Your task to perform on an android device: change the clock display to show seconds Image 0: 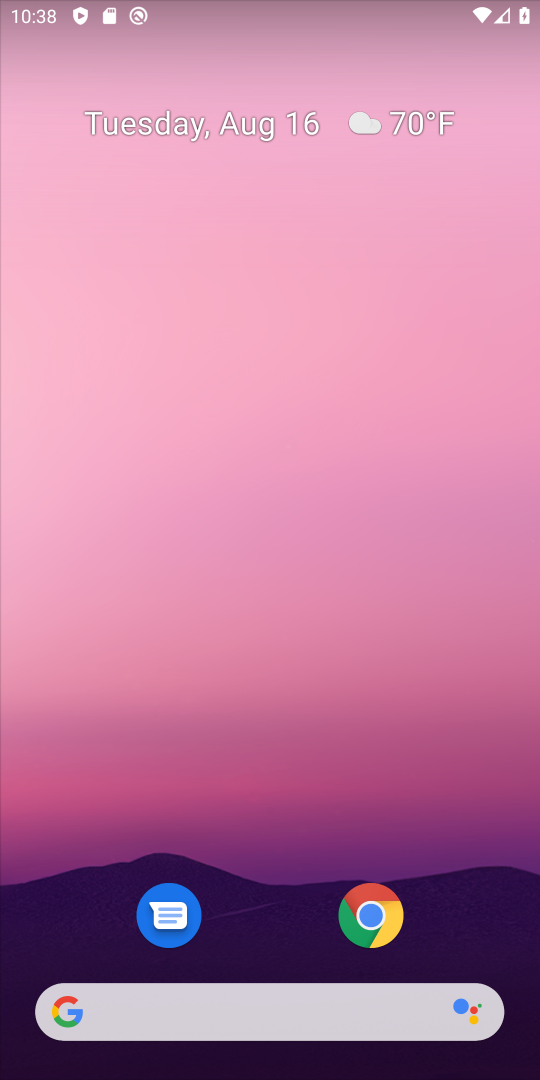
Step 0: drag from (295, 954) to (282, 31)
Your task to perform on an android device: change the clock display to show seconds Image 1: 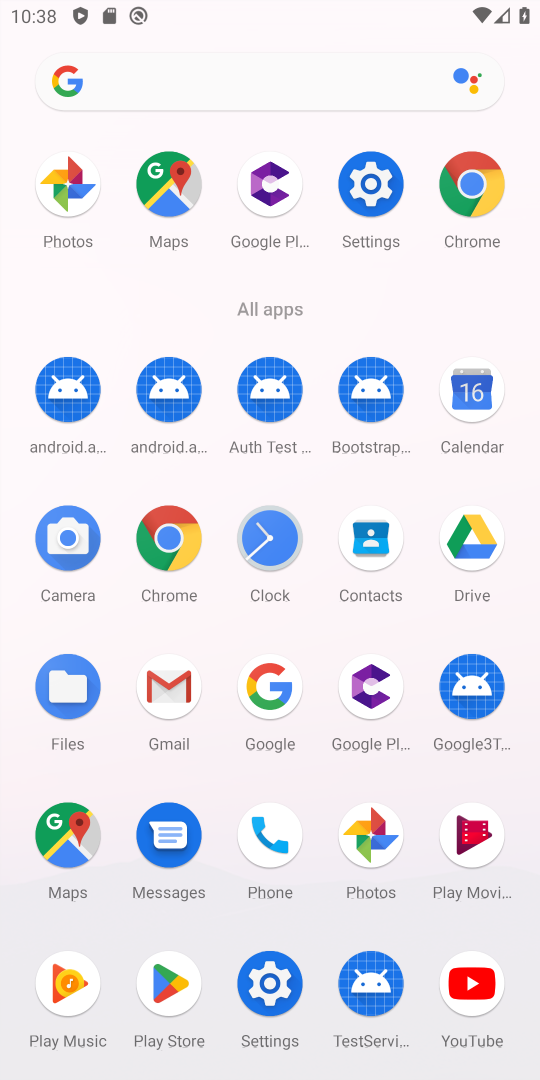
Step 1: click (261, 612)
Your task to perform on an android device: change the clock display to show seconds Image 2: 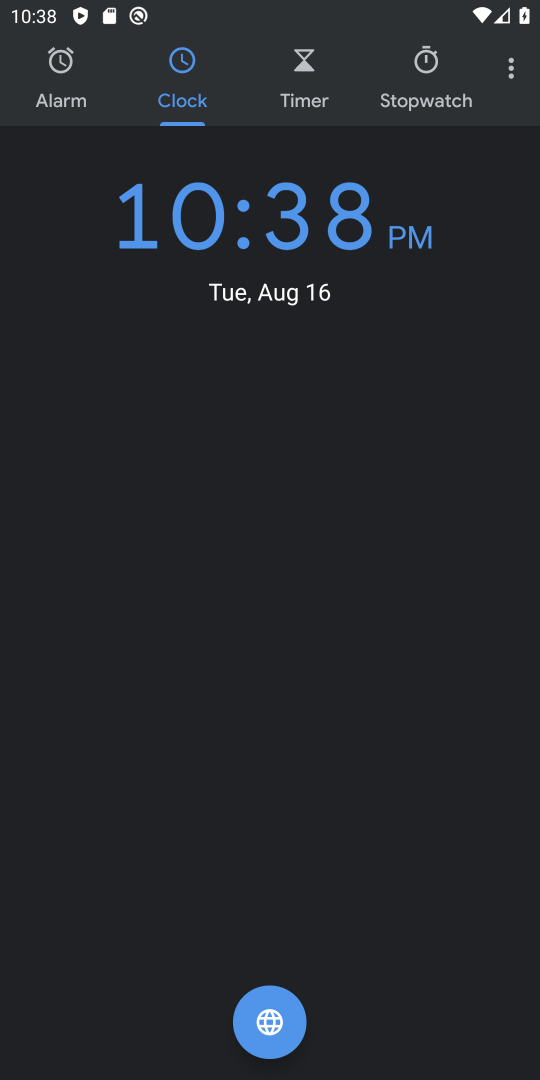
Step 2: click (524, 76)
Your task to perform on an android device: change the clock display to show seconds Image 3: 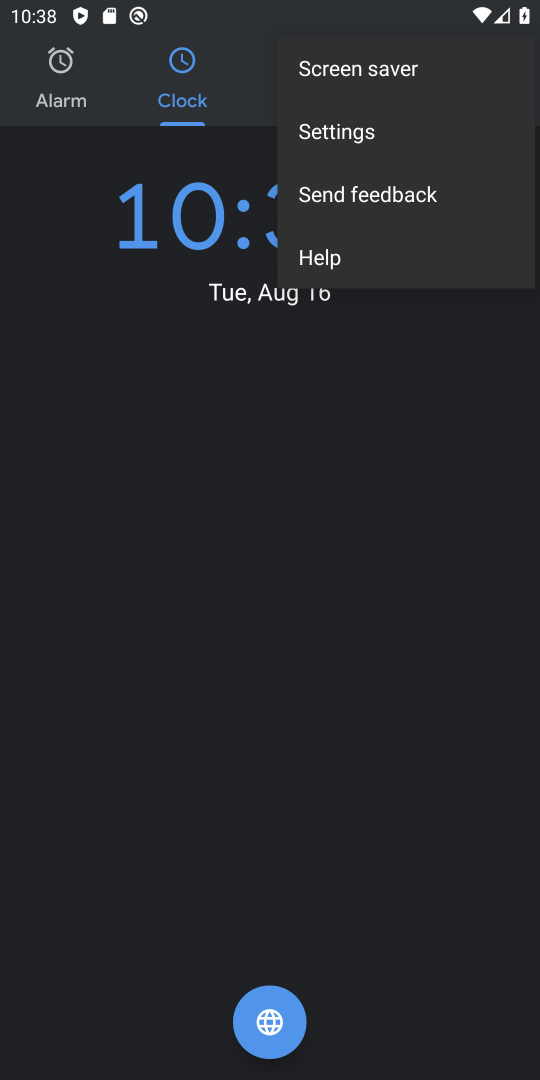
Step 3: click (372, 136)
Your task to perform on an android device: change the clock display to show seconds Image 4: 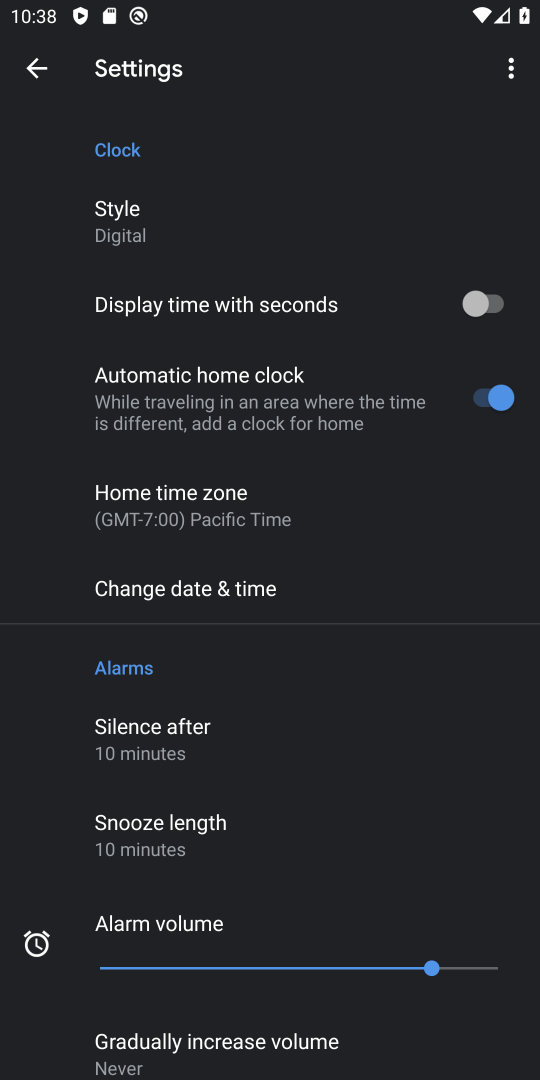
Step 4: click (478, 290)
Your task to perform on an android device: change the clock display to show seconds Image 5: 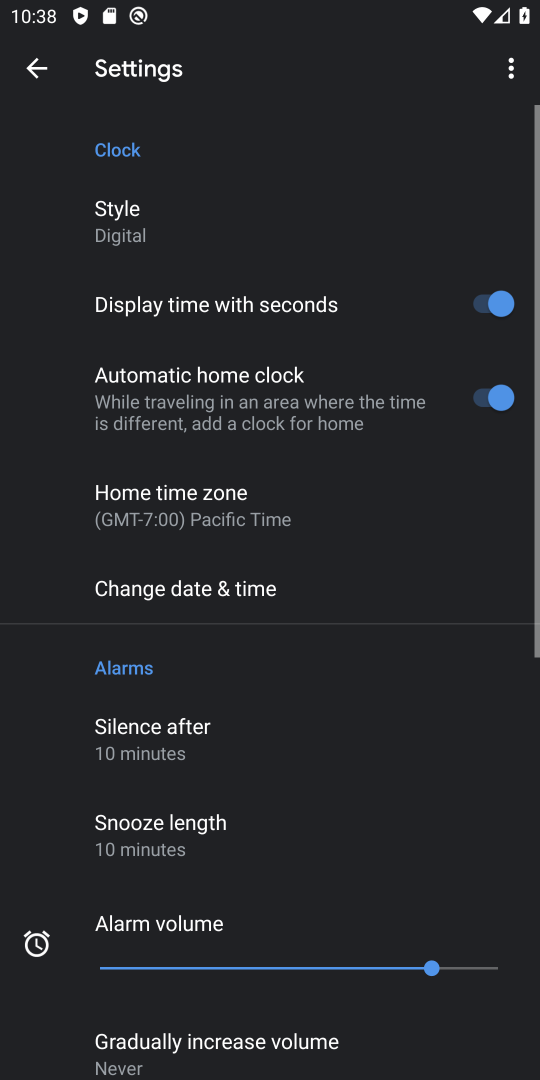
Step 5: task complete